Your task to perform on an android device: Search for Mexican restaurants on Maps Image 0: 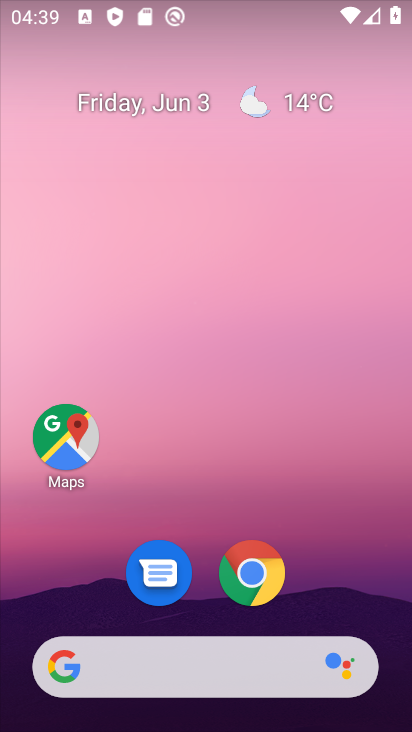
Step 0: drag from (322, 608) to (349, 190)
Your task to perform on an android device: Search for Mexican restaurants on Maps Image 1: 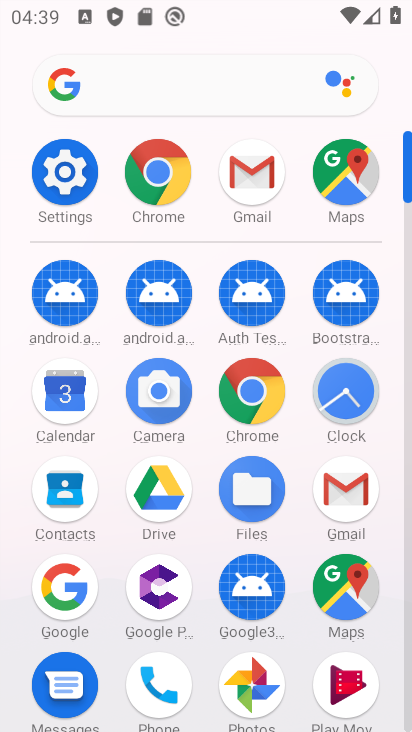
Step 1: click (334, 615)
Your task to perform on an android device: Search for Mexican restaurants on Maps Image 2: 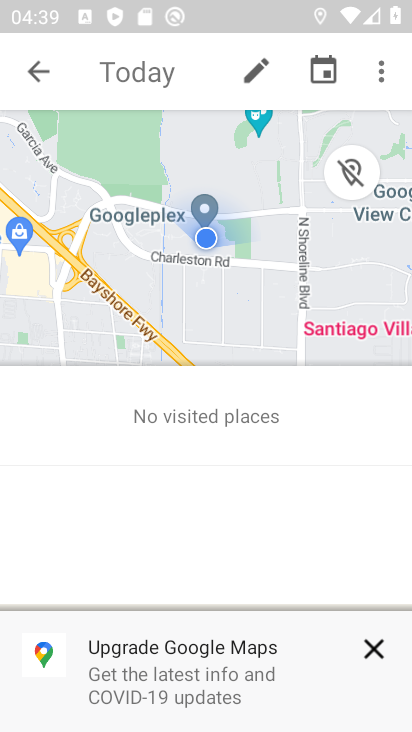
Step 2: press back button
Your task to perform on an android device: Search for Mexican restaurants on Maps Image 3: 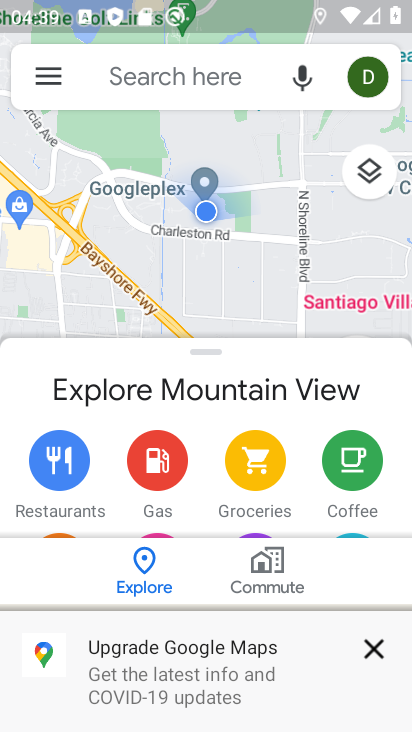
Step 3: click (202, 77)
Your task to perform on an android device: Search for Mexican restaurants on Maps Image 4: 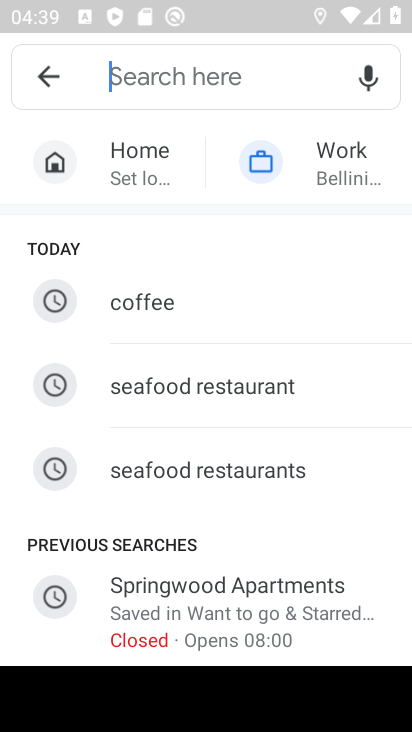
Step 4: type "mexican restaurant"
Your task to perform on an android device: Search for Mexican restaurants on Maps Image 5: 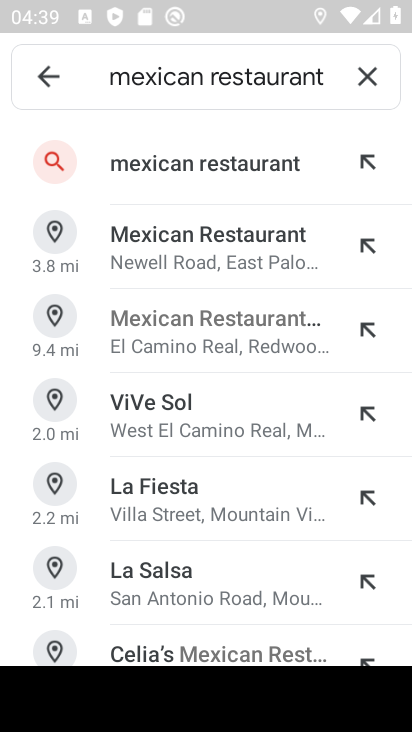
Step 5: click (261, 164)
Your task to perform on an android device: Search for Mexican restaurants on Maps Image 6: 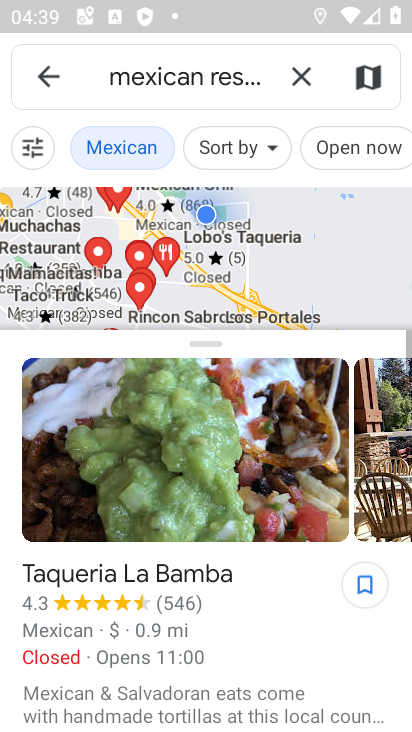
Step 6: task complete